Your task to perform on an android device: Is it going to rain tomorrow? Image 0: 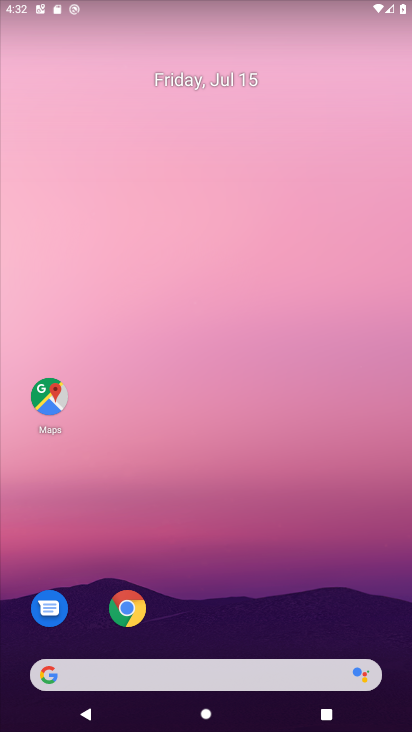
Step 0: drag from (279, 702) to (241, 187)
Your task to perform on an android device: Is it going to rain tomorrow? Image 1: 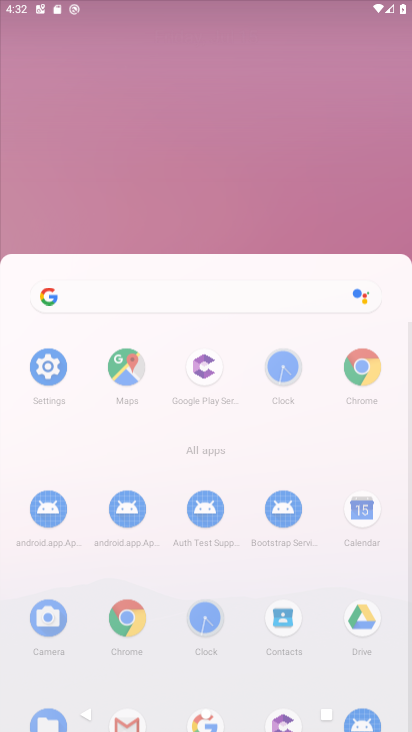
Step 1: drag from (199, 641) to (151, 157)
Your task to perform on an android device: Is it going to rain tomorrow? Image 2: 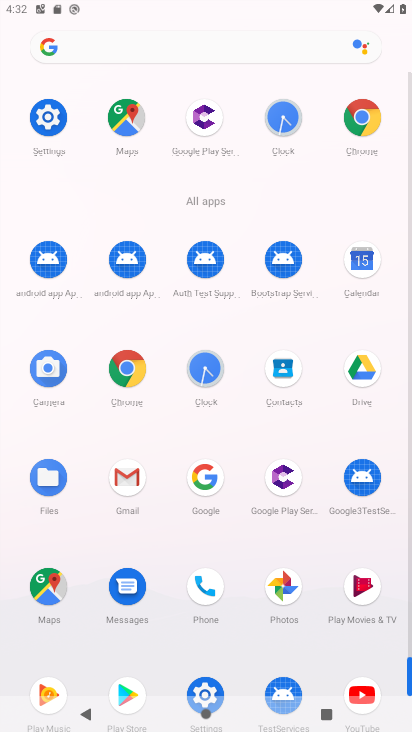
Step 2: click (352, 120)
Your task to perform on an android device: Is it going to rain tomorrow? Image 3: 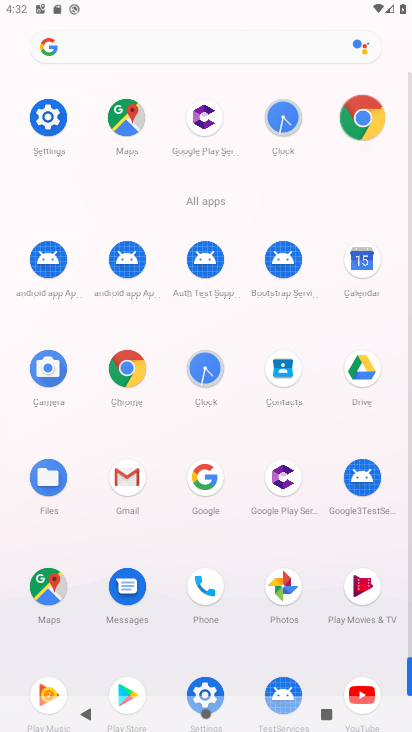
Step 3: click (352, 119)
Your task to perform on an android device: Is it going to rain tomorrow? Image 4: 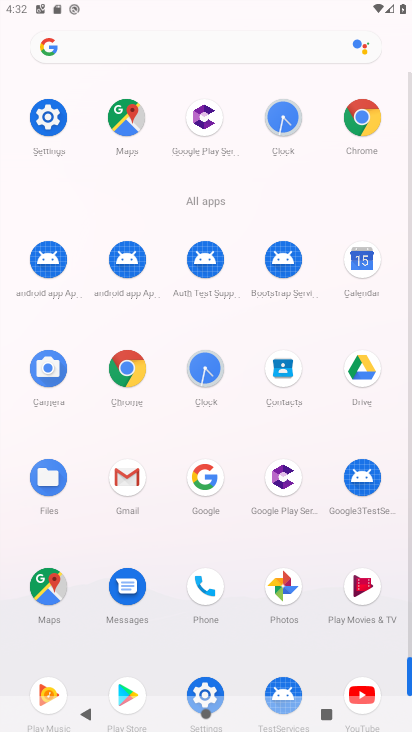
Step 4: click (368, 116)
Your task to perform on an android device: Is it going to rain tomorrow? Image 5: 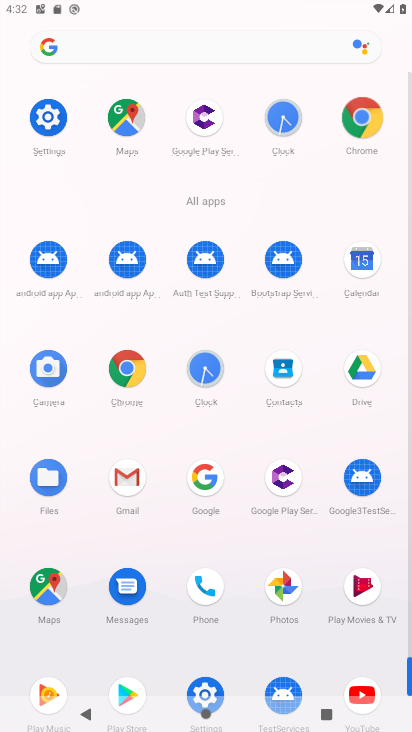
Step 5: click (368, 116)
Your task to perform on an android device: Is it going to rain tomorrow? Image 6: 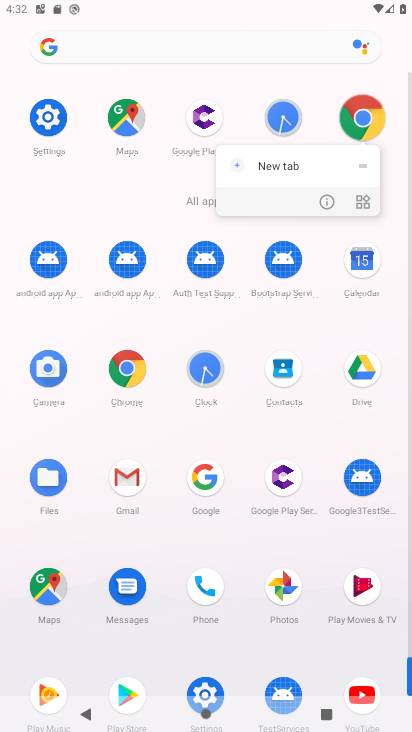
Step 6: click (366, 123)
Your task to perform on an android device: Is it going to rain tomorrow? Image 7: 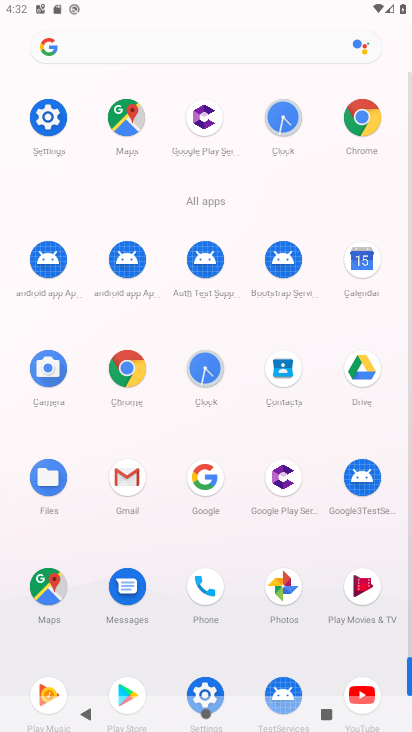
Step 7: click (364, 122)
Your task to perform on an android device: Is it going to rain tomorrow? Image 8: 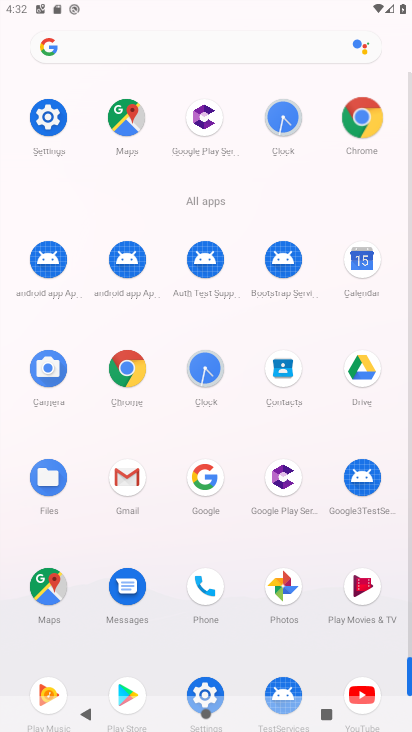
Step 8: click (366, 119)
Your task to perform on an android device: Is it going to rain tomorrow? Image 9: 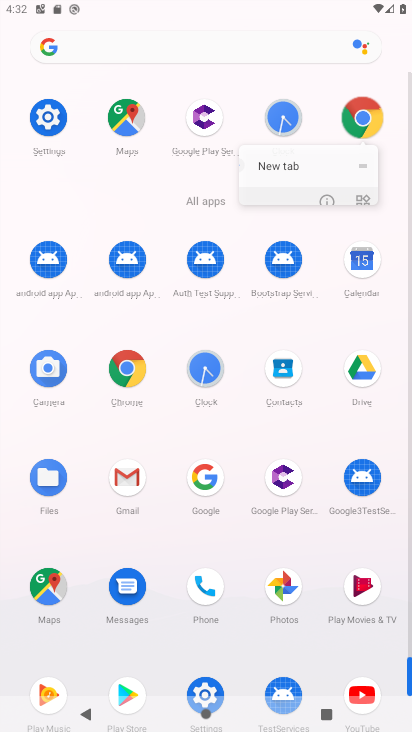
Step 9: click (366, 118)
Your task to perform on an android device: Is it going to rain tomorrow? Image 10: 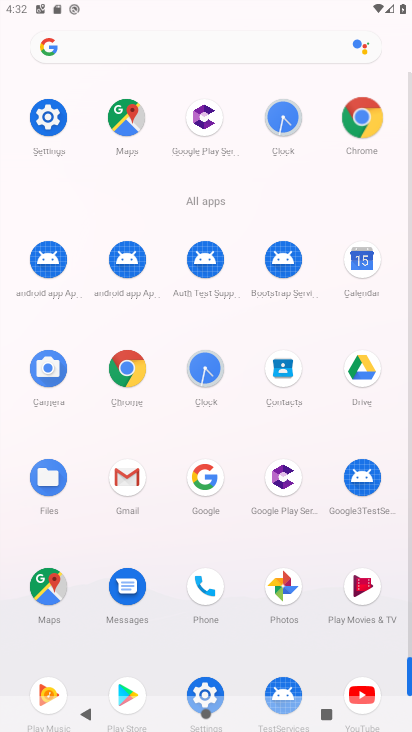
Step 10: click (367, 120)
Your task to perform on an android device: Is it going to rain tomorrow? Image 11: 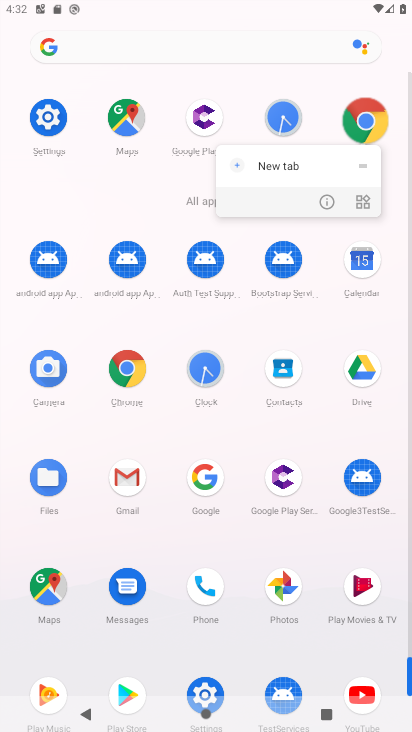
Step 11: click (370, 123)
Your task to perform on an android device: Is it going to rain tomorrow? Image 12: 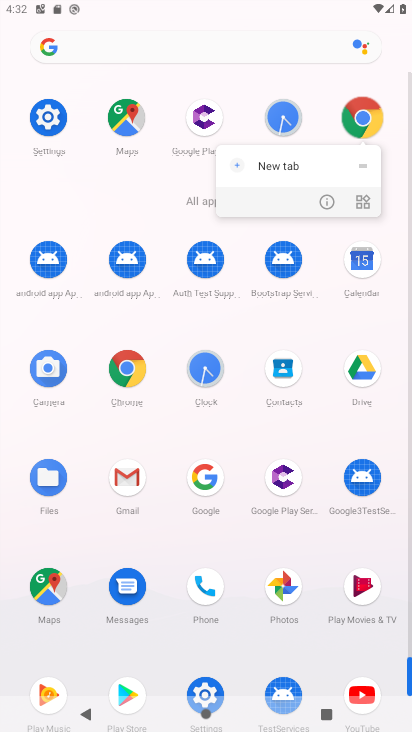
Step 12: click (370, 123)
Your task to perform on an android device: Is it going to rain tomorrow? Image 13: 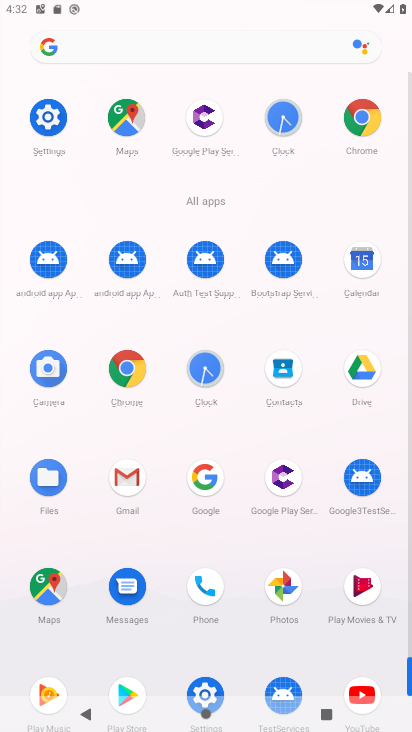
Step 13: click (128, 377)
Your task to perform on an android device: Is it going to rain tomorrow? Image 14: 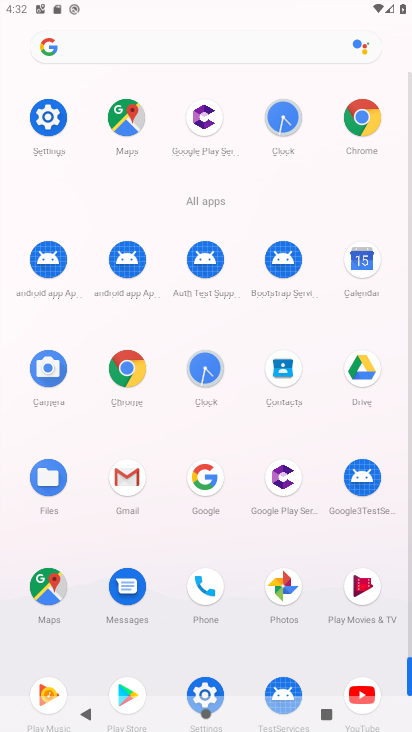
Step 14: click (128, 374)
Your task to perform on an android device: Is it going to rain tomorrow? Image 15: 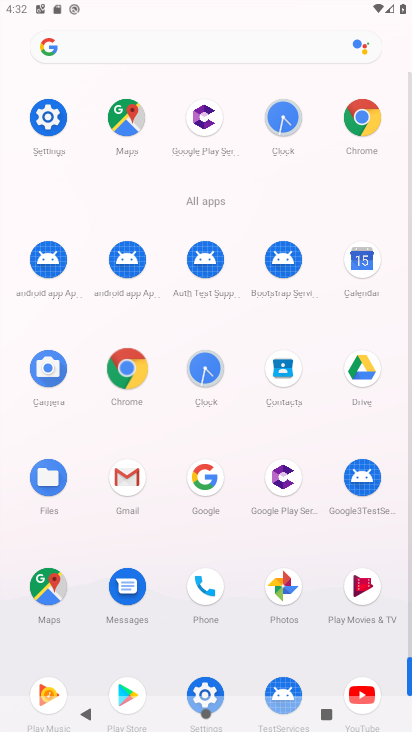
Step 15: click (128, 374)
Your task to perform on an android device: Is it going to rain tomorrow? Image 16: 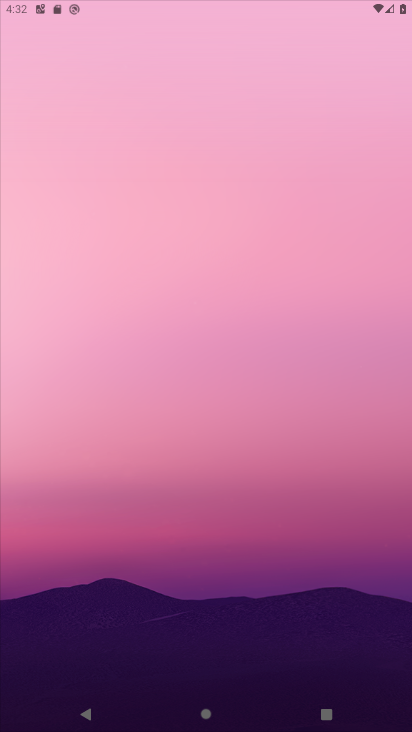
Step 16: click (132, 369)
Your task to perform on an android device: Is it going to rain tomorrow? Image 17: 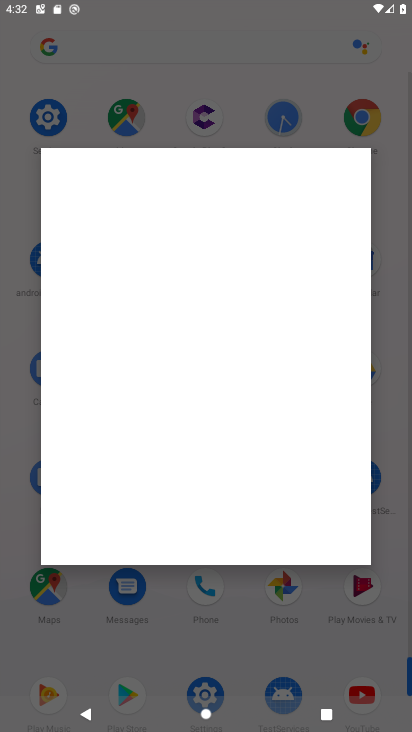
Step 17: drag from (251, 689) to (247, 56)
Your task to perform on an android device: Is it going to rain tomorrow? Image 18: 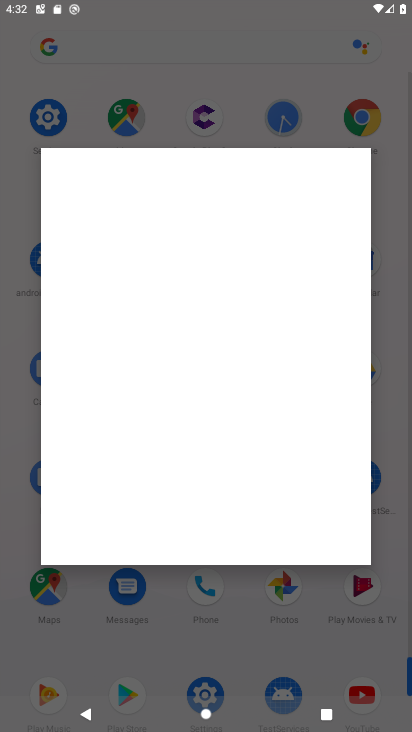
Step 18: drag from (256, 493) to (228, 166)
Your task to perform on an android device: Is it going to rain tomorrow? Image 19: 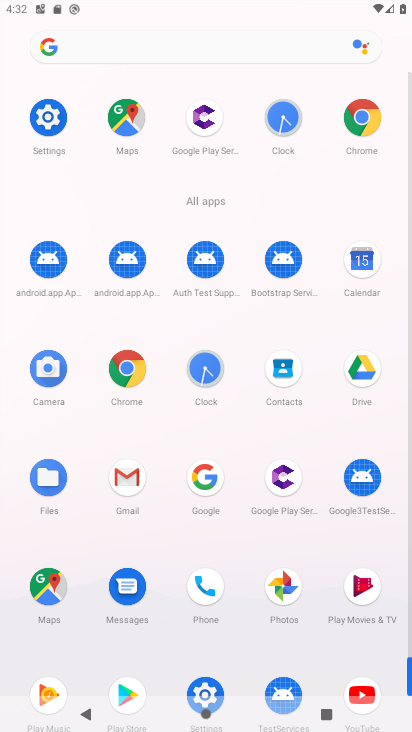
Step 19: click (95, 49)
Your task to perform on an android device: Is it going to rain tomorrow? Image 20: 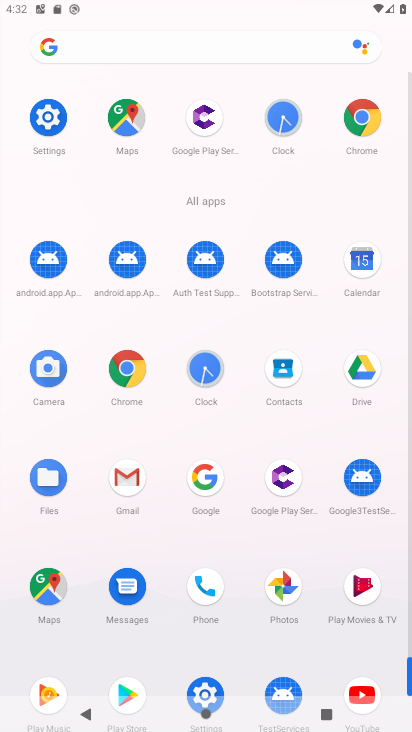
Step 20: click (95, 49)
Your task to perform on an android device: Is it going to rain tomorrow? Image 21: 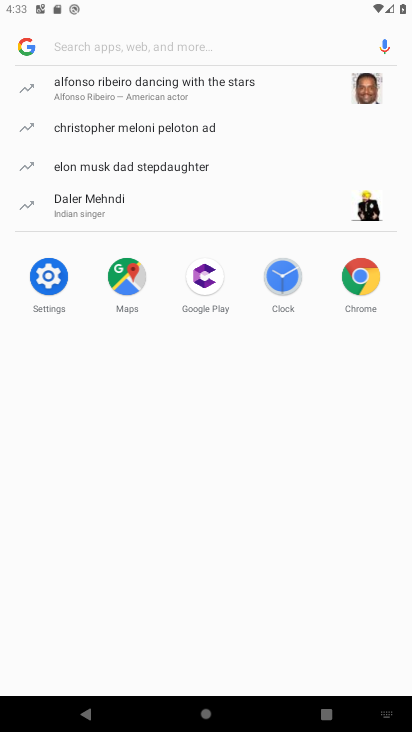
Step 21: click (364, 281)
Your task to perform on an android device: Is it going to rain tomorrow? Image 22: 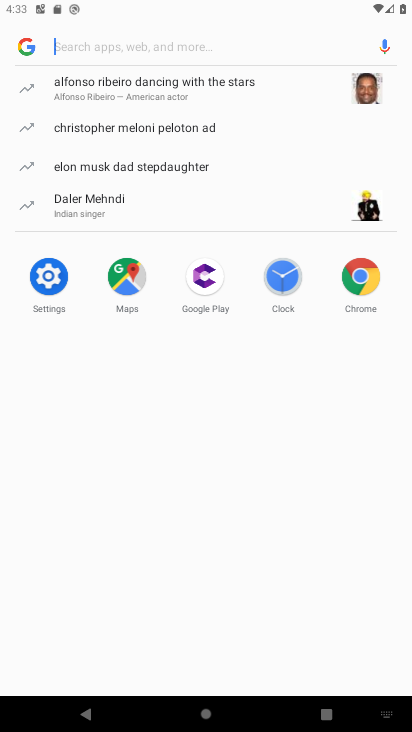
Step 22: click (366, 282)
Your task to perform on an android device: Is it going to rain tomorrow? Image 23: 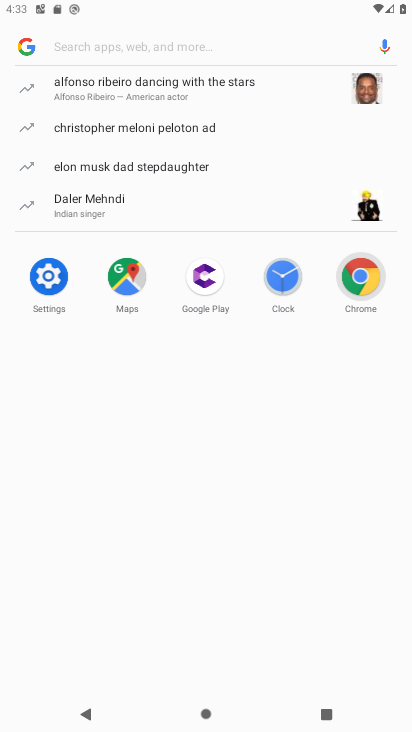
Step 23: click (366, 282)
Your task to perform on an android device: Is it going to rain tomorrow? Image 24: 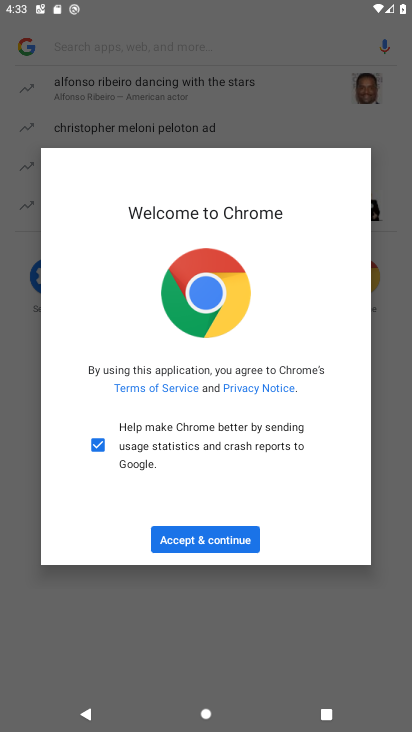
Step 24: click (215, 535)
Your task to perform on an android device: Is it going to rain tomorrow? Image 25: 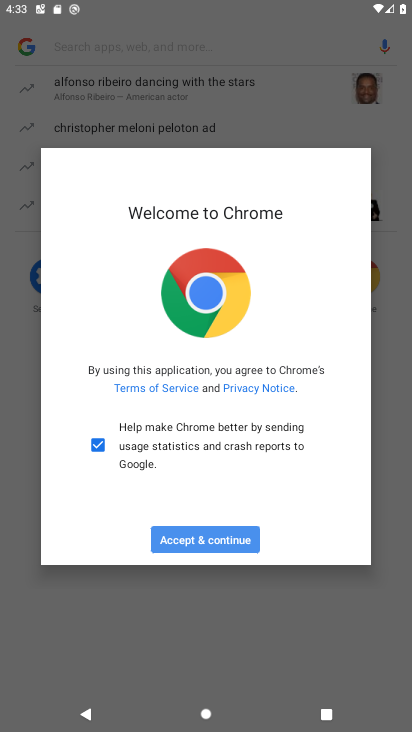
Step 25: click (231, 533)
Your task to perform on an android device: Is it going to rain tomorrow? Image 26: 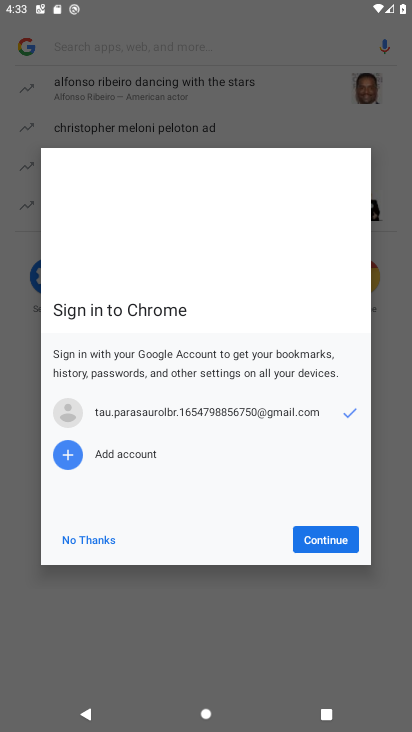
Step 26: click (231, 533)
Your task to perform on an android device: Is it going to rain tomorrow? Image 27: 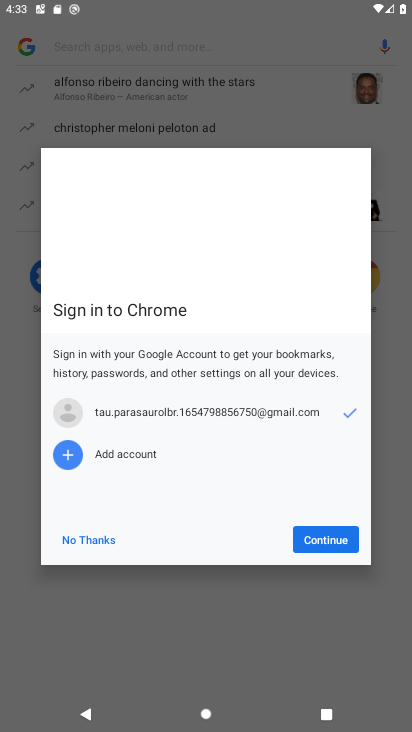
Step 27: click (232, 533)
Your task to perform on an android device: Is it going to rain tomorrow? Image 28: 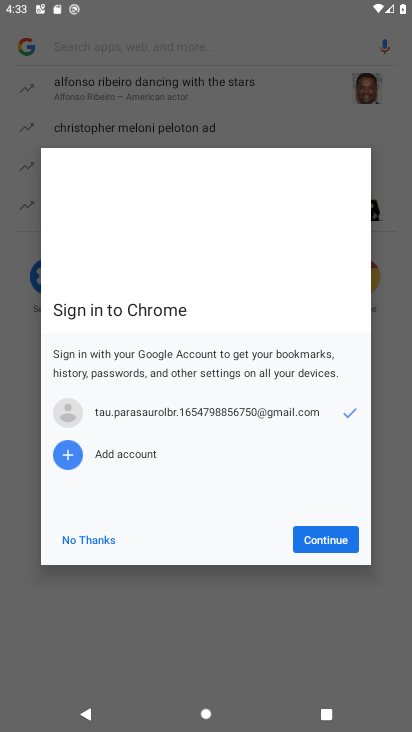
Step 28: click (326, 545)
Your task to perform on an android device: Is it going to rain tomorrow? Image 29: 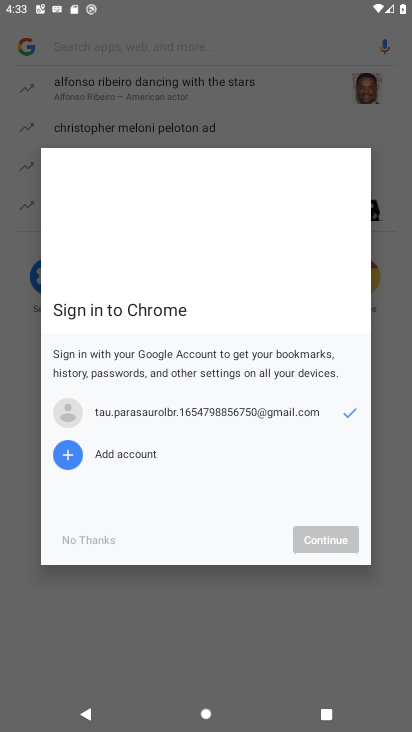
Step 29: click (322, 533)
Your task to perform on an android device: Is it going to rain tomorrow? Image 30: 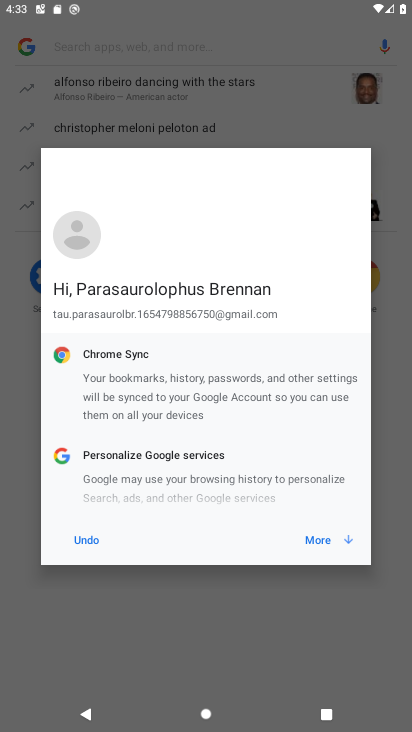
Step 30: click (330, 534)
Your task to perform on an android device: Is it going to rain tomorrow? Image 31: 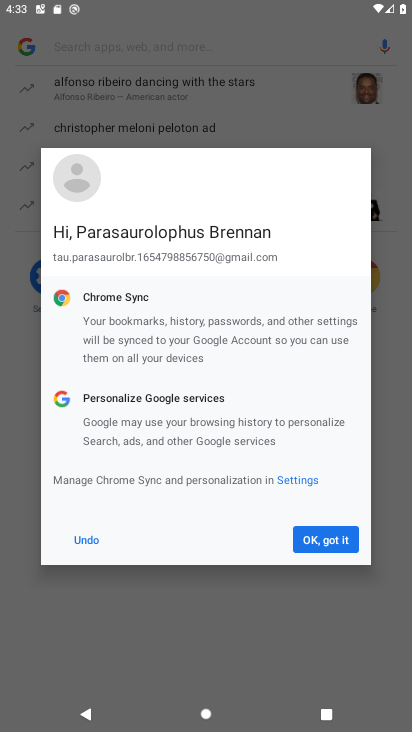
Step 31: click (330, 534)
Your task to perform on an android device: Is it going to rain tomorrow? Image 32: 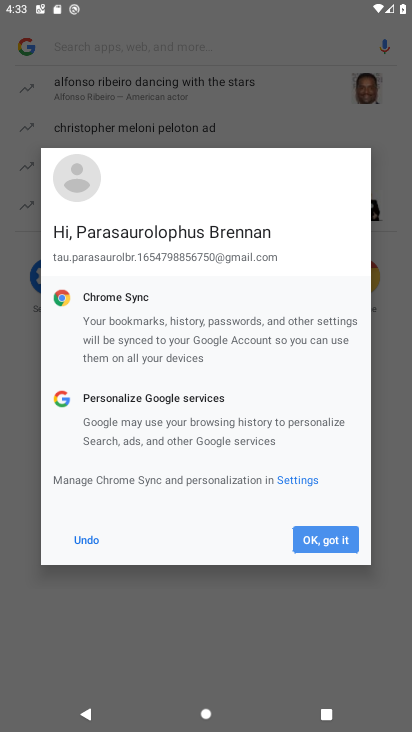
Step 32: click (330, 534)
Your task to perform on an android device: Is it going to rain tomorrow? Image 33: 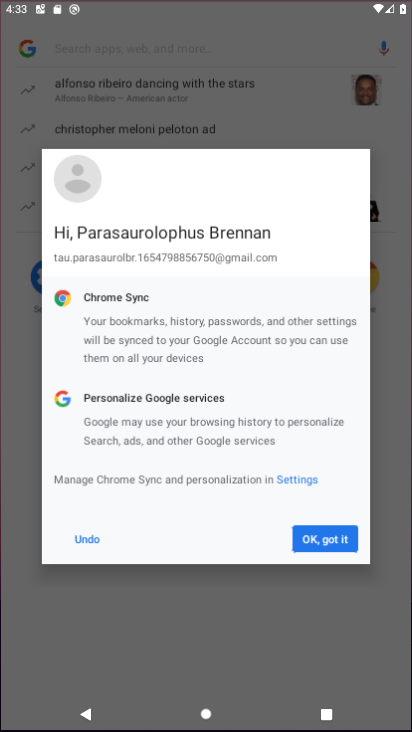
Step 33: click (330, 534)
Your task to perform on an android device: Is it going to rain tomorrow? Image 34: 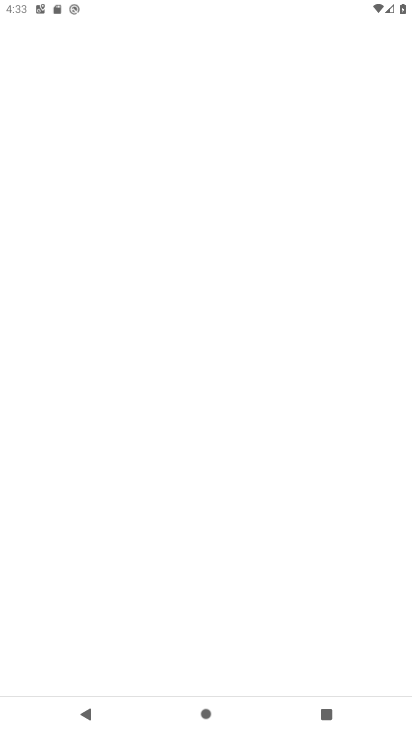
Step 34: click (330, 533)
Your task to perform on an android device: Is it going to rain tomorrow? Image 35: 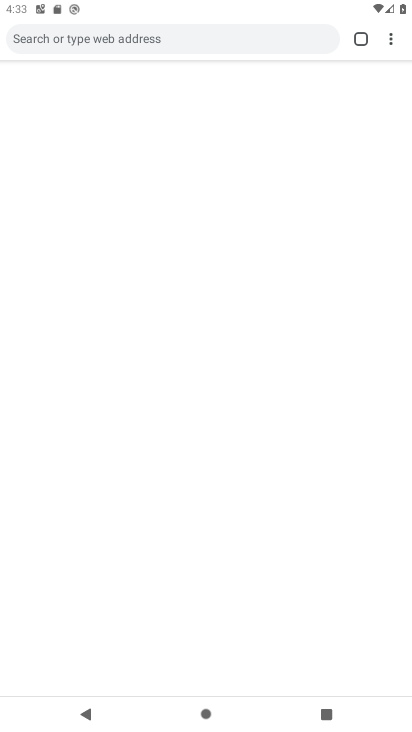
Step 35: click (330, 533)
Your task to perform on an android device: Is it going to rain tomorrow? Image 36: 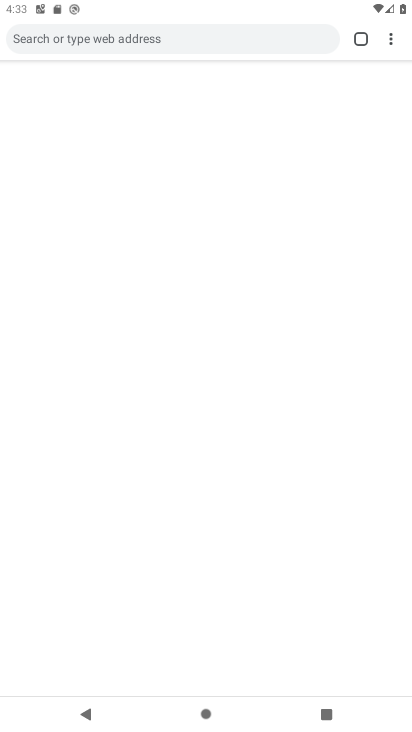
Step 36: click (331, 533)
Your task to perform on an android device: Is it going to rain tomorrow? Image 37: 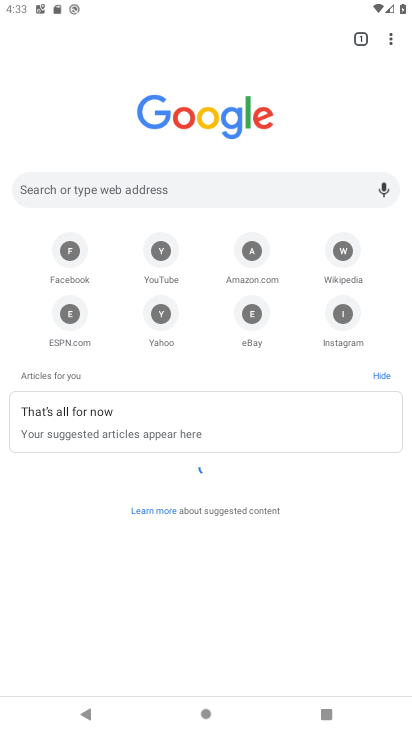
Step 37: click (91, 204)
Your task to perform on an android device: Is it going to rain tomorrow? Image 38: 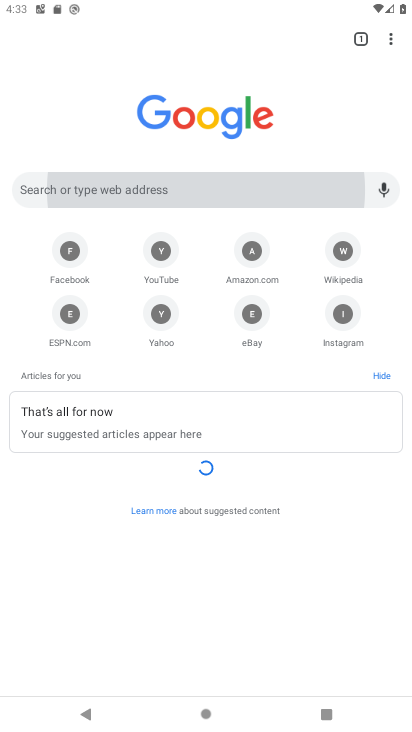
Step 38: click (89, 196)
Your task to perform on an android device: Is it going to rain tomorrow? Image 39: 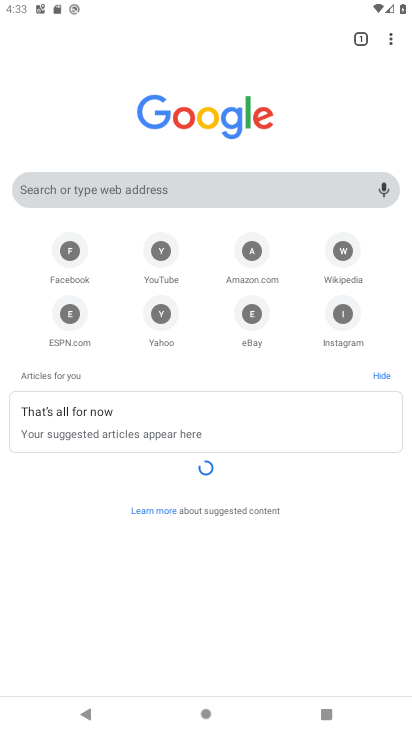
Step 39: click (89, 196)
Your task to perform on an android device: Is it going to rain tomorrow? Image 40: 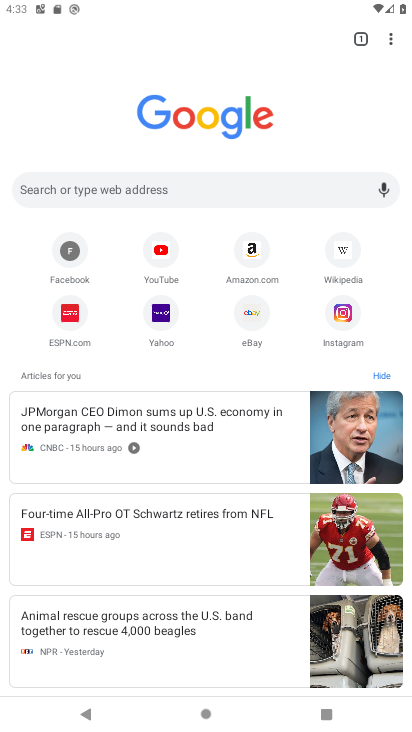
Step 40: type "Is it going to rain tomorrow?"
Your task to perform on an android device: Is it going to rain tomorrow? Image 41: 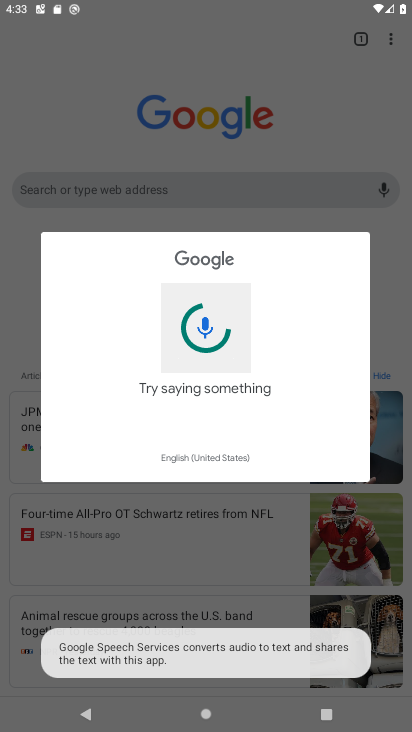
Step 41: click (150, 183)
Your task to perform on an android device: Is it going to rain tomorrow? Image 42: 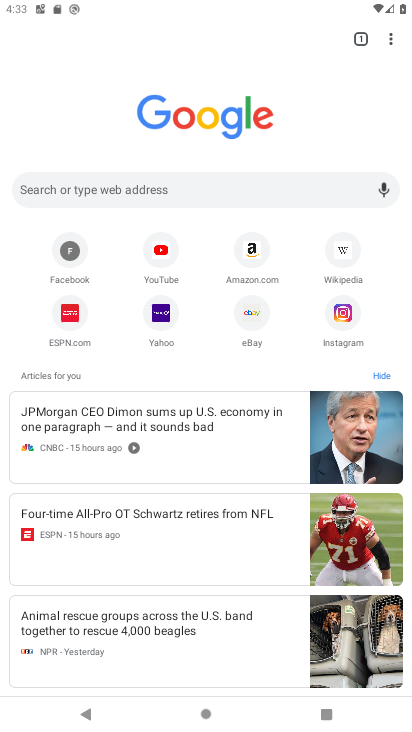
Step 42: task complete